Your task to perform on an android device: change your default location settings in chrome Image 0: 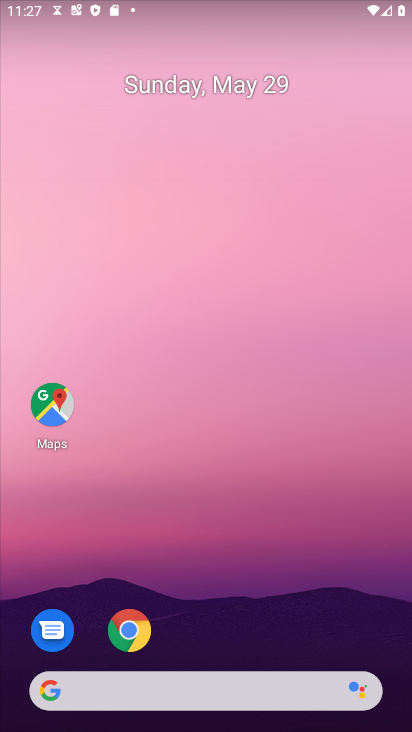
Step 0: click (140, 640)
Your task to perform on an android device: change your default location settings in chrome Image 1: 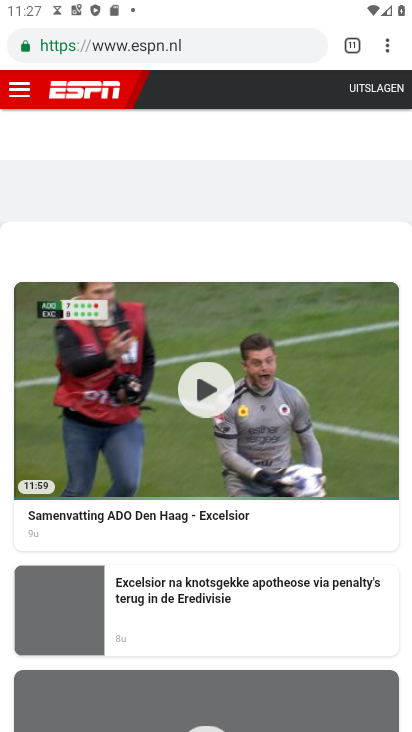
Step 1: click (388, 42)
Your task to perform on an android device: change your default location settings in chrome Image 2: 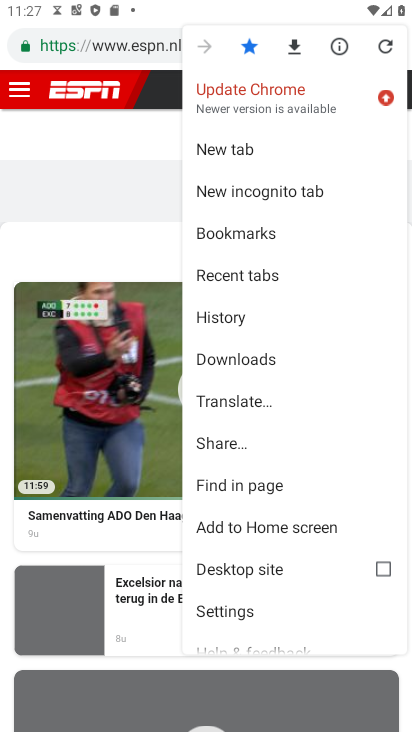
Step 2: click (249, 605)
Your task to perform on an android device: change your default location settings in chrome Image 3: 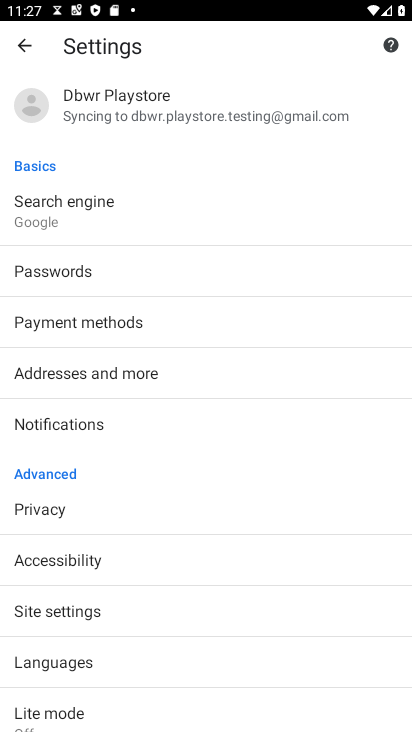
Step 3: drag from (222, 608) to (208, 263)
Your task to perform on an android device: change your default location settings in chrome Image 4: 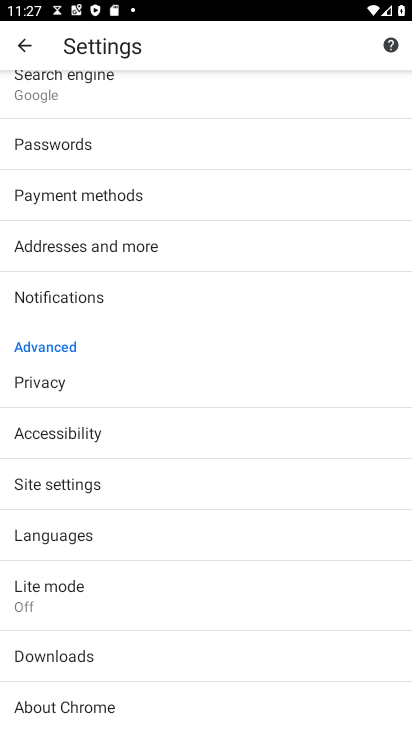
Step 4: click (104, 482)
Your task to perform on an android device: change your default location settings in chrome Image 5: 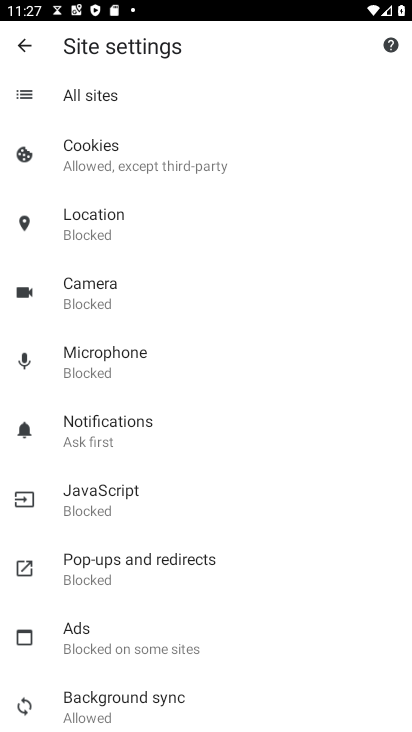
Step 5: click (107, 238)
Your task to perform on an android device: change your default location settings in chrome Image 6: 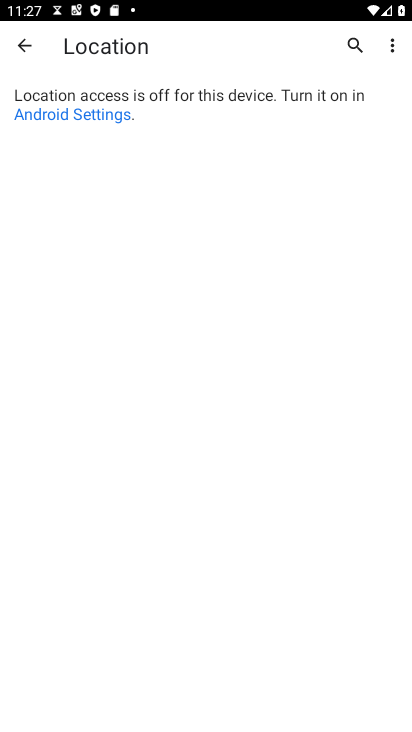
Step 6: click (94, 107)
Your task to perform on an android device: change your default location settings in chrome Image 7: 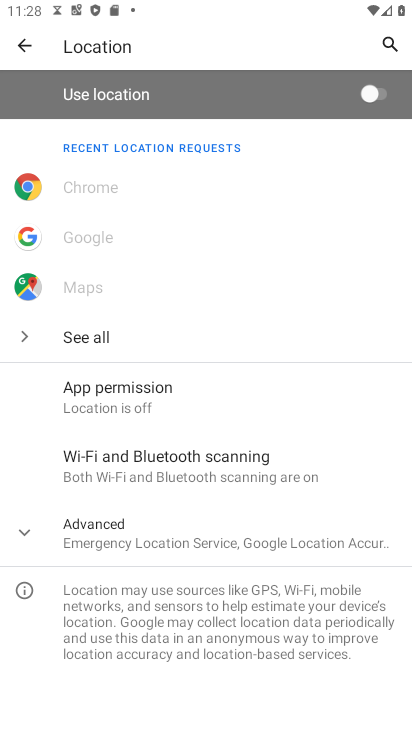
Step 7: click (140, 518)
Your task to perform on an android device: change your default location settings in chrome Image 8: 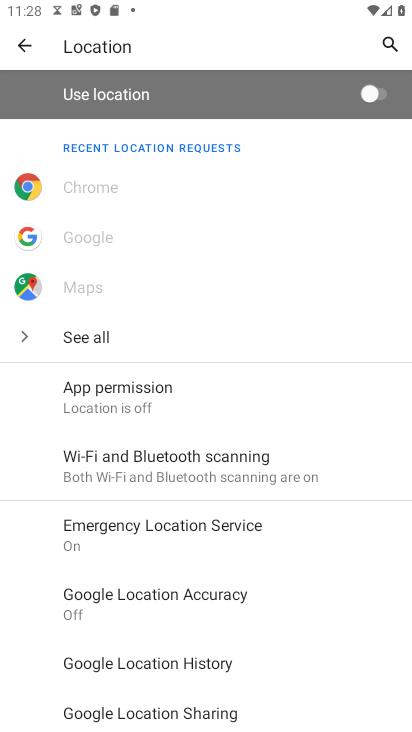
Step 8: task complete